Your task to perform on an android device: turn off translation in the chrome app Image 0: 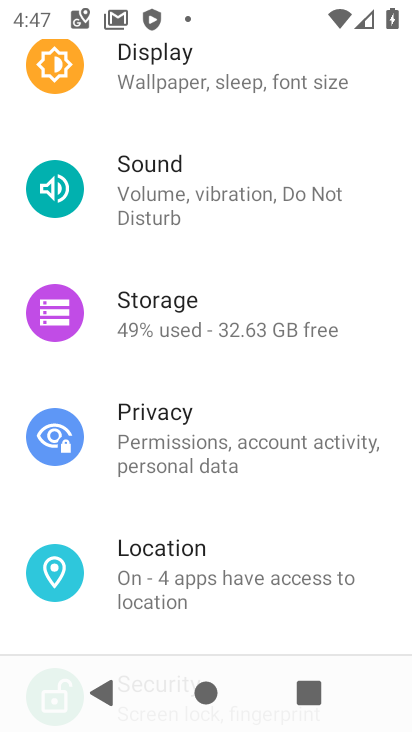
Step 0: press home button
Your task to perform on an android device: turn off translation in the chrome app Image 1: 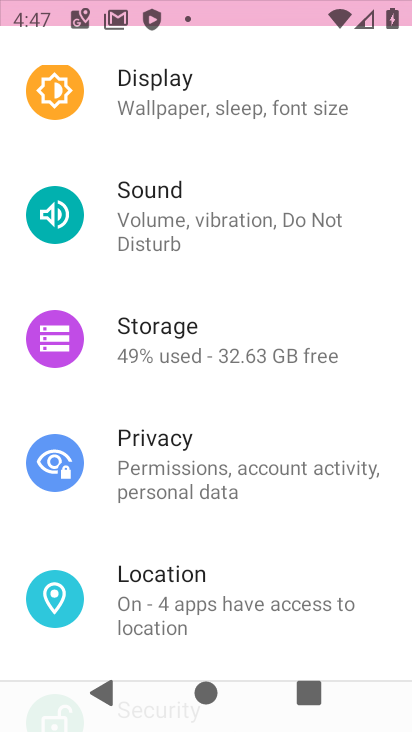
Step 1: drag from (144, 483) to (169, 194)
Your task to perform on an android device: turn off translation in the chrome app Image 2: 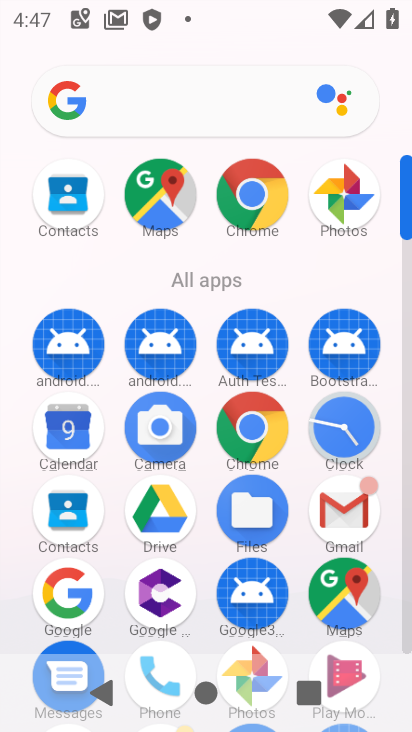
Step 2: click (241, 431)
Your task to perform on an android device: turn off translation in the chrome app Image 3: 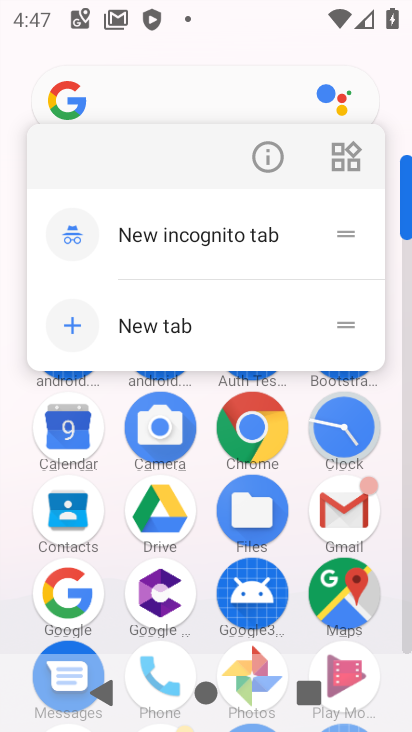
Step 3: click (258, 159)
Your task to perform on an android device: turn off translation in the chrome app Image 4: 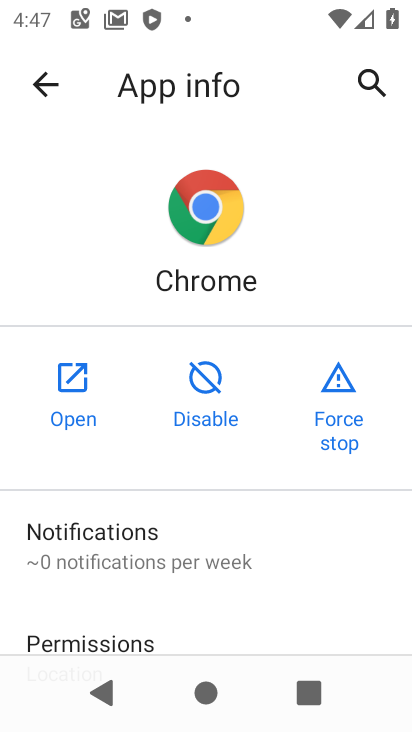
Step 4: click (79, 395)
Your task to perform on an android device: turn off translation in the chrome app Image 5: 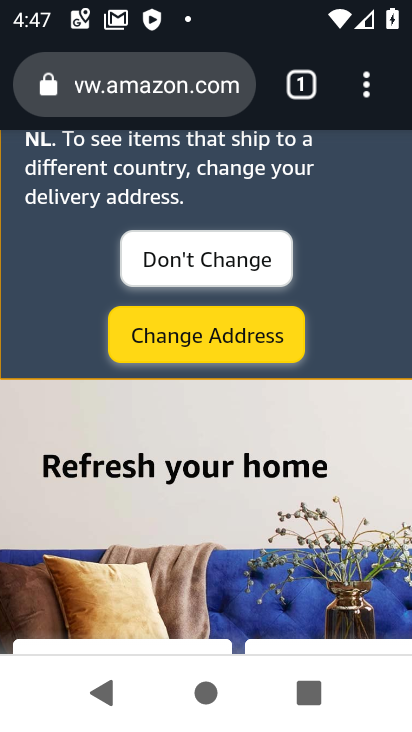
Step 5: click (366, 84)
Your task to perform on an android device: turn off translation in the chrome app Image 6: 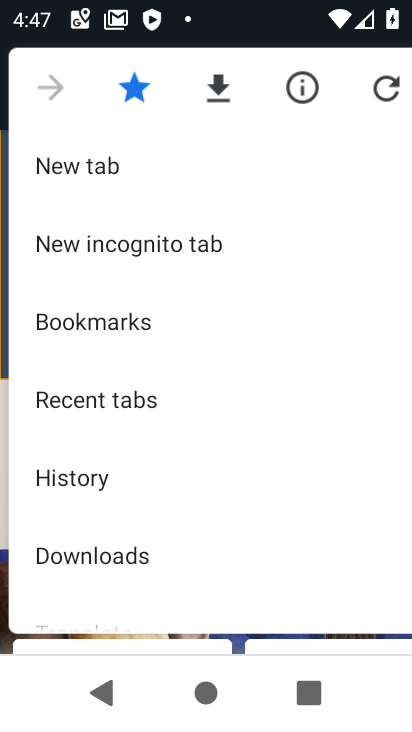
Step 6: drag from (181, 555) to (284, 106)
Your task to perform on an android device: turn off translation in the chrome app Image 7: 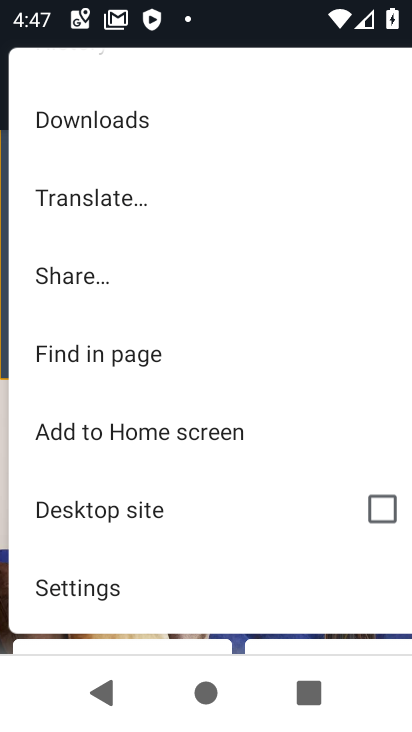
Step 7: click (86, 591)
Your task to perform on an android device: turn off translation in the chrome app Image 8: 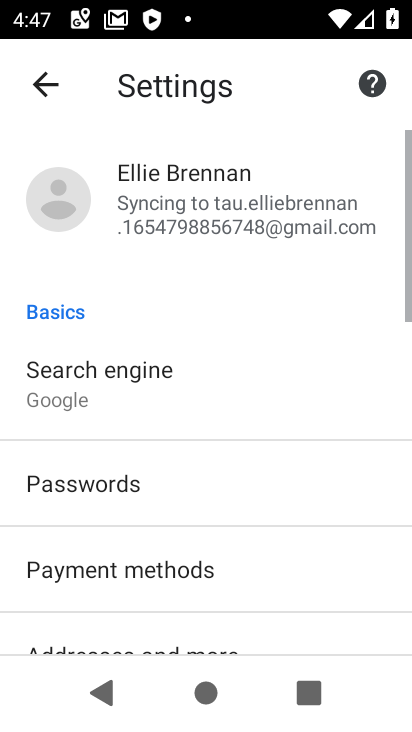
Step 8: drag from (193, 560) to (273, 46)
Your task to perform on an android device: turn off translation in the chrome app Image 9: 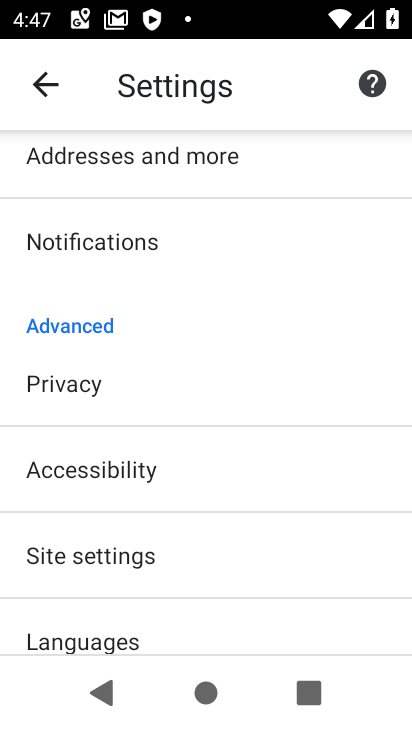
Step 9: drag from (141, 593) to (340, 52)
Your task to perform on an android device: turn off translation in the chrome app Image 10: 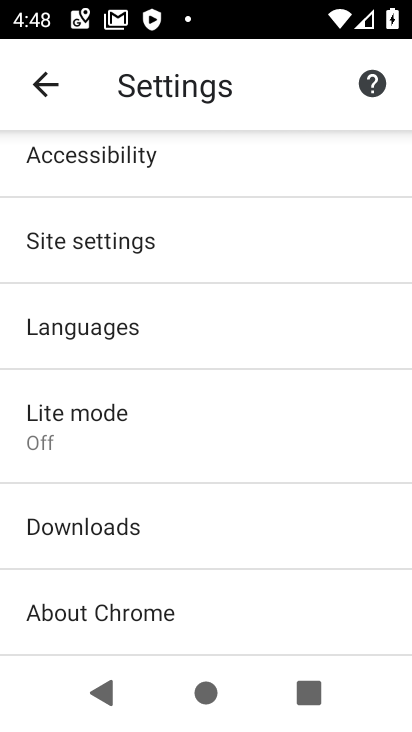
Step 10: drag from (161, 486) to (279, 81)
Your task to perform on an android device: turn off translation in the chrome app Image 11: 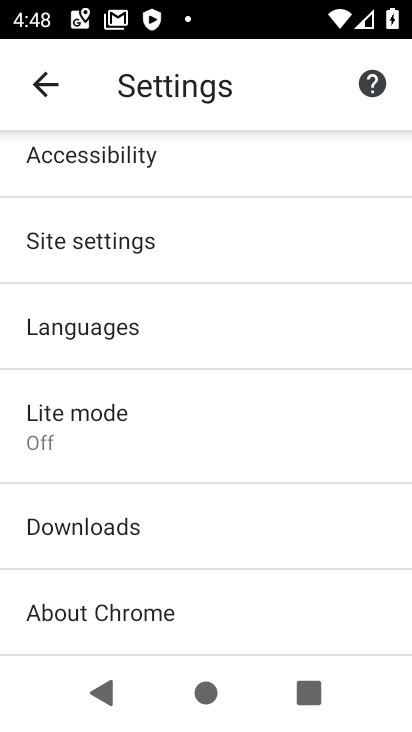
Step 11: click (115, 347)
Your task to perform on an android device: turn off translation in the chrome app Image 12: 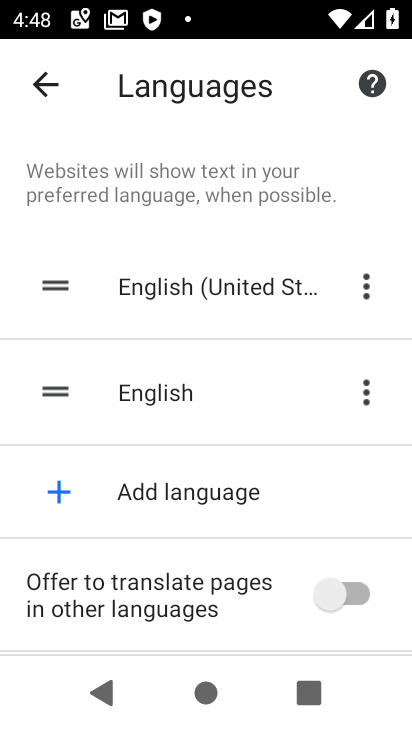
Step 12: task complete